Your task to perform on an android device: Open location settings Image 0: 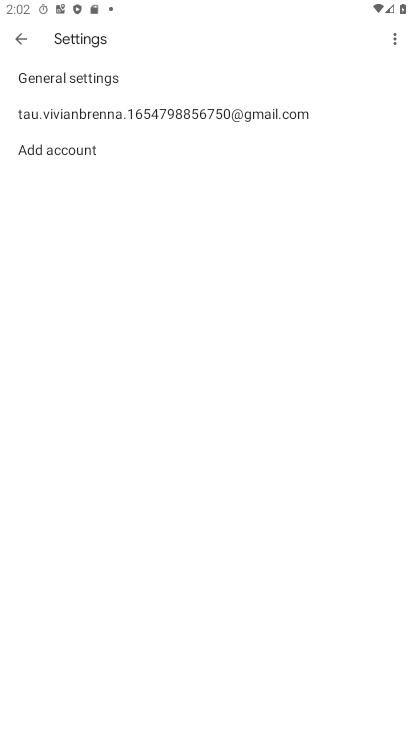
Step 0: press home button
Your task to perform on an android device: Open location settings Image 1: 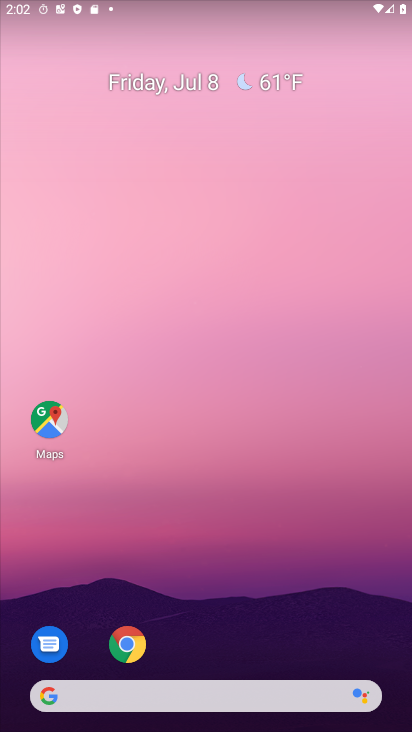
Step 1: drag from (206, 298) to (209, 26)
Your task to perform on an android device: Open location settings Image 2: 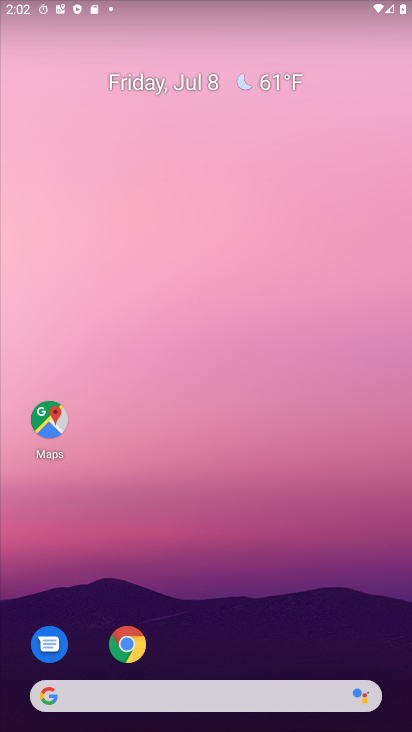
Step 2: click (246, 0)
Your task to perform on an android device: Open location settings Image 3: 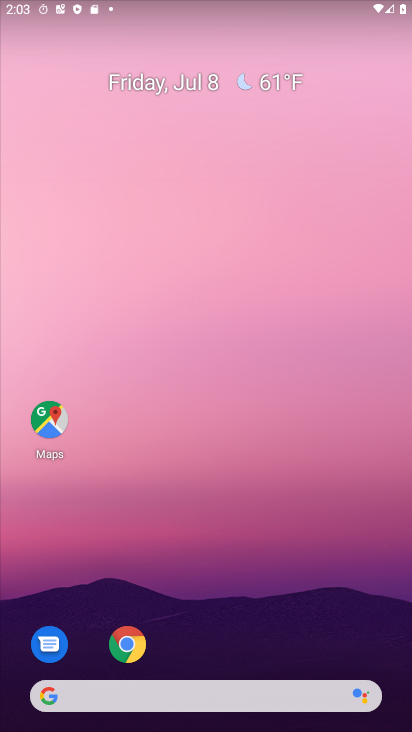
Step 3: drag from (221, 476) to (221, 119)
Your task to perform on an android device: Open location settings Image 4: 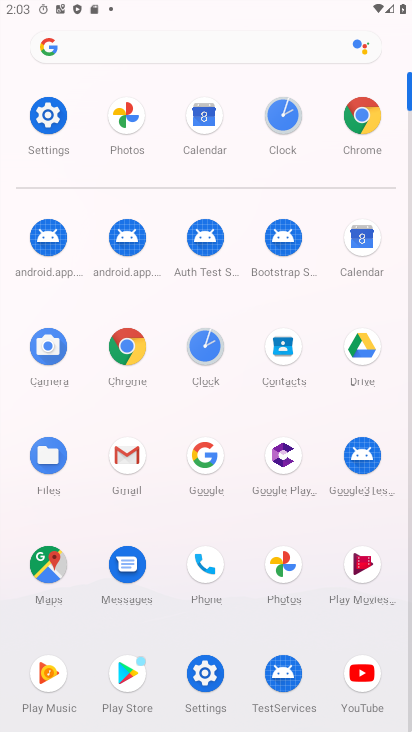
Step 4: click (46, 130)
Your task to perform on an android device: Open location settings Image 5: 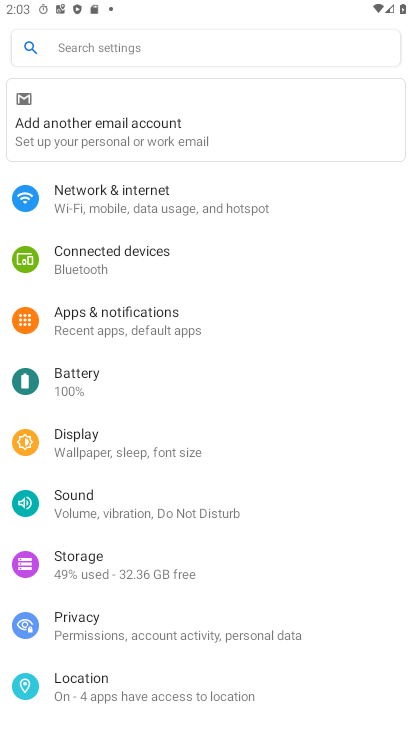
Step 5: click (121, 698)
Your task to perform on an android device: Open location settings Image 6: 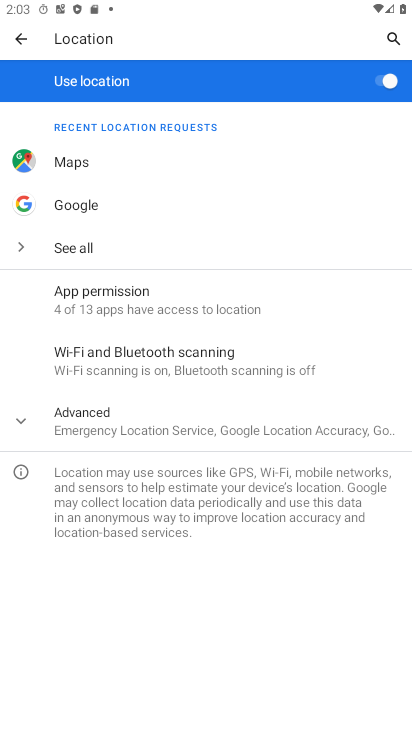
Step 6: task complete